Your task to perform on an android device: What's the weather going to be tomorrow? Image 0: 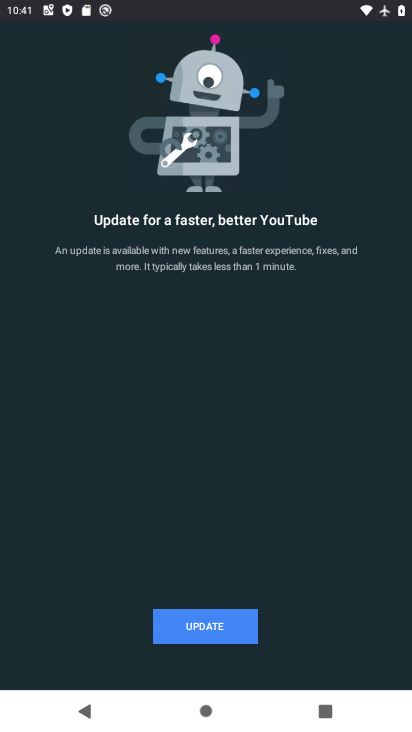
Step 0: press home button
Your task to perform on an android device: What's the weather going to be tomorrow? Image 1: 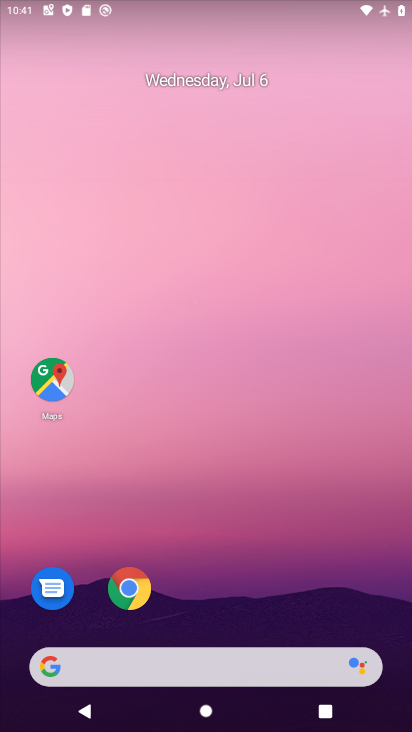
Step 1: drag from (255, 547) to (222, 233)
Your task to perform on an android device: What's the weather going to be tomorrow? Image 2: 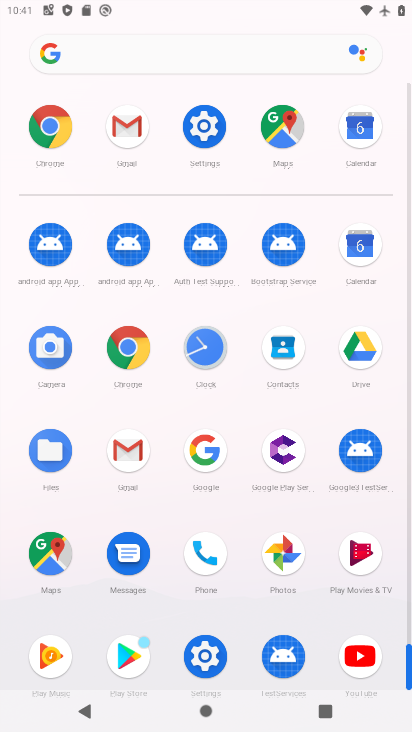
Step 2: click (133, 346)
Your task to perform on an android device: What's the weather going to be tomorrow? Image 3: 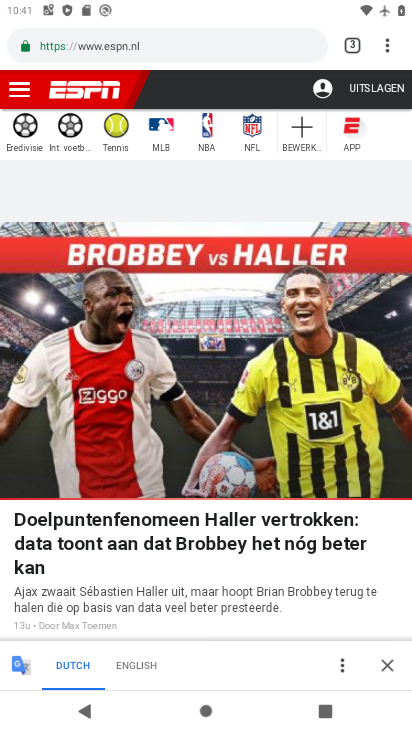
Step 3: click (385, 42)
Your task to perform on an android device: What's the weather going to be tomorrow? Image 4: 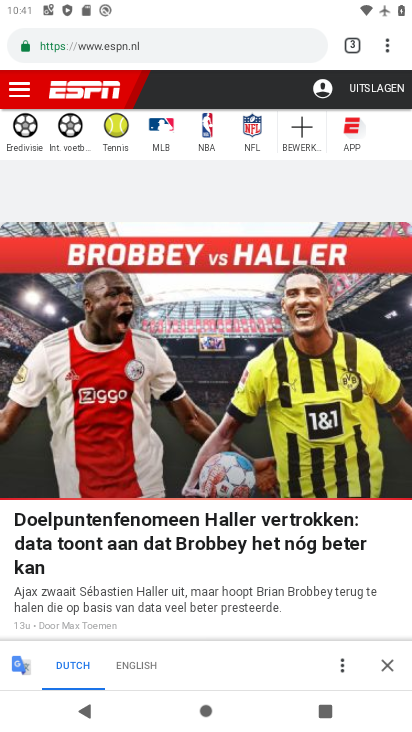
Step 4: click (386, 42)
Your task to perform on an android device: What's the weather going to be tomorrow? Image 5: 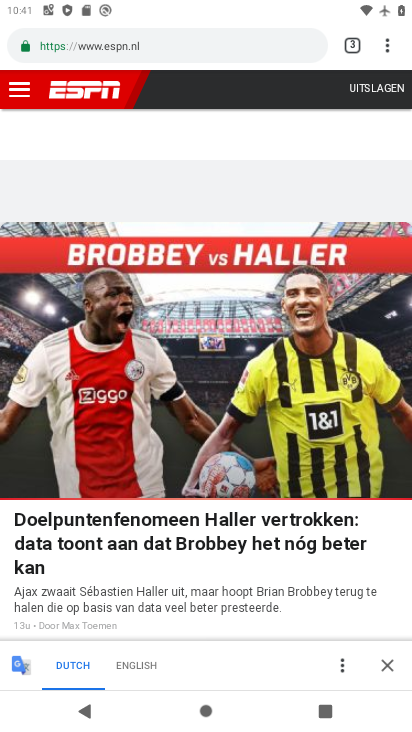
Step 5: click (388, 44)
Your task to perform on an android device: What's the weather going to be tomorrow? Image 6: 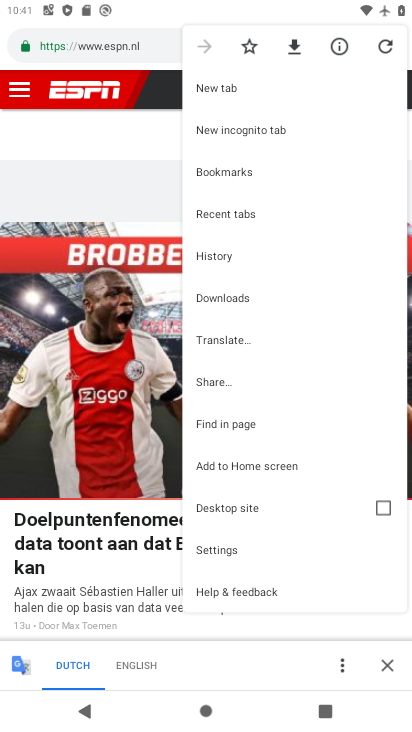
Step 6: click (249, 84)
Your task to perform on an android device: What's the weather going to be tomorrow? Image 7: 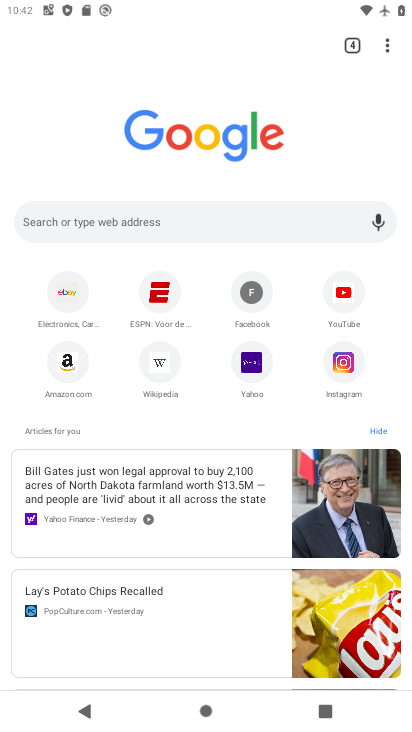
Step 7: click (182, 211)
Your task to perform on an android device: What's the weather going to be tomorrow? Image 8: 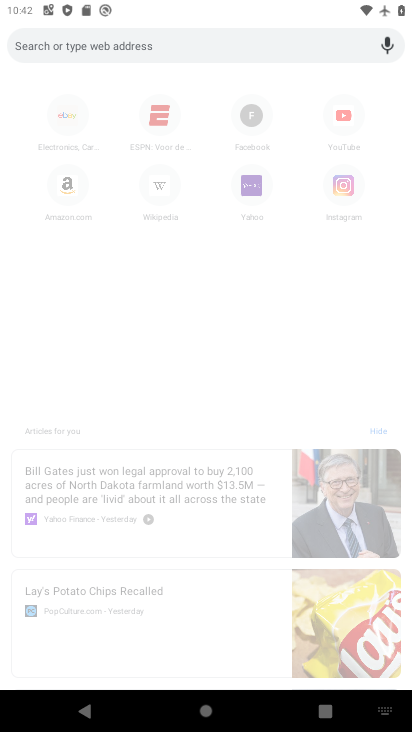
Step 8: type "What's the weather going to be tomorrow "
Your task to perform on an android device: What's the weather going to be tomorrow? Image 9: 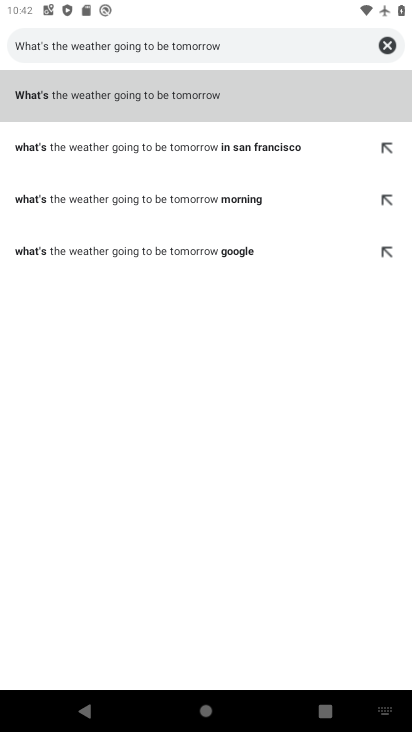
Step 9: click (136, 89)
Your task to perform on an android device: What's the weather going to be tomorrow? Image 10: 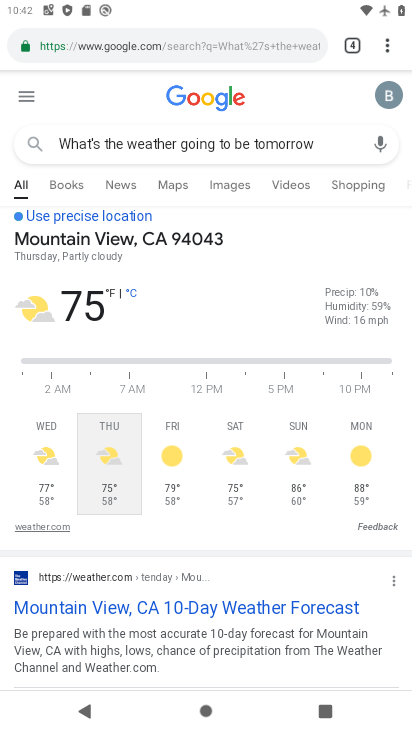
Step 10: task complete